Your task to perform on an android device: Open CNN.com Image 0: 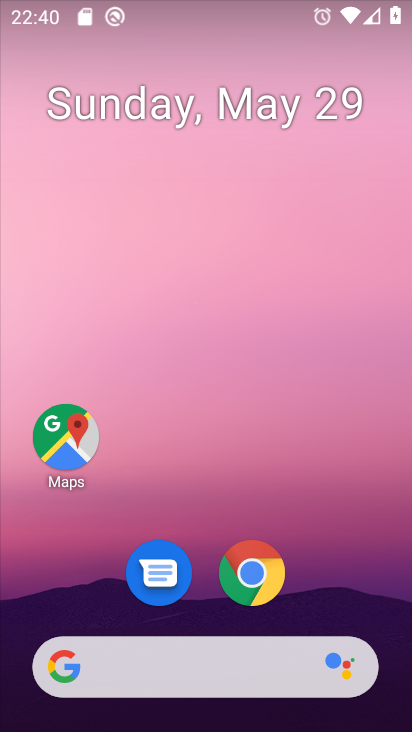
Step 0: click (208, 667)
Your task to perform on an android device: Open CNN.com Image 1: 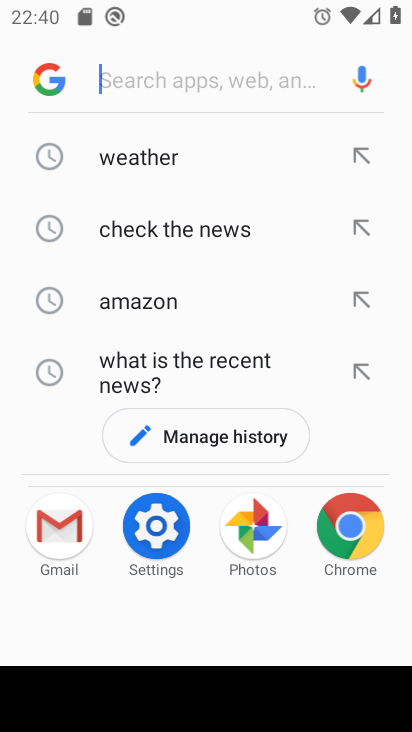
Step 1: type "cnn.com"
Your task to perform on an android device: Open CNN.com Image 2: 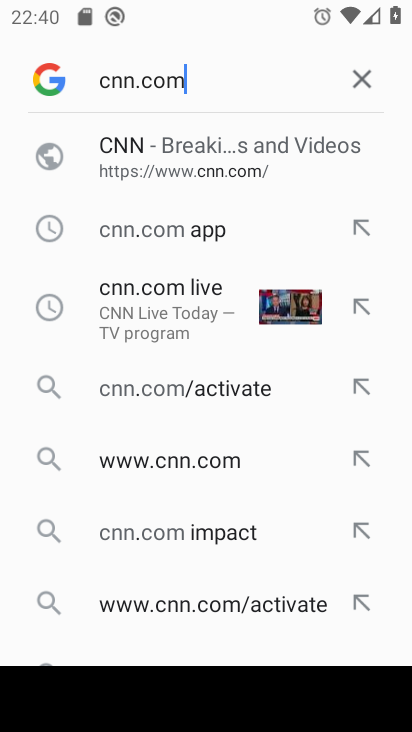
Step 2: click (134, 153)
Your task to perform on an android device: Open CNN.com Image 3: 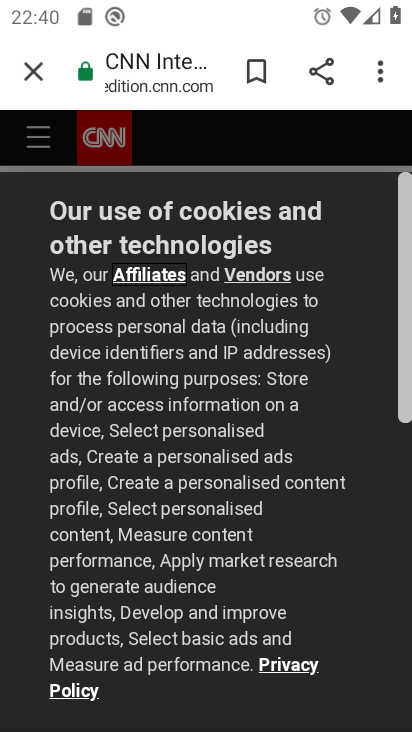
Step 3: task complete